Your task to perform on an android device: Toggle the flashlight Image 0: 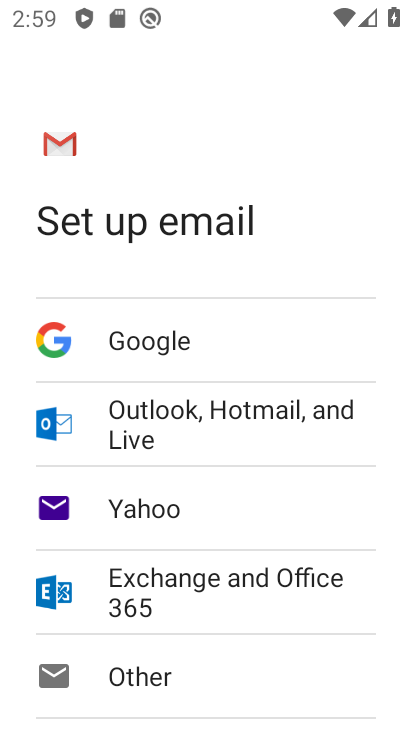
Step 0: press home button
Your task to perform on an android device: Toggle the flashlight Image 1: 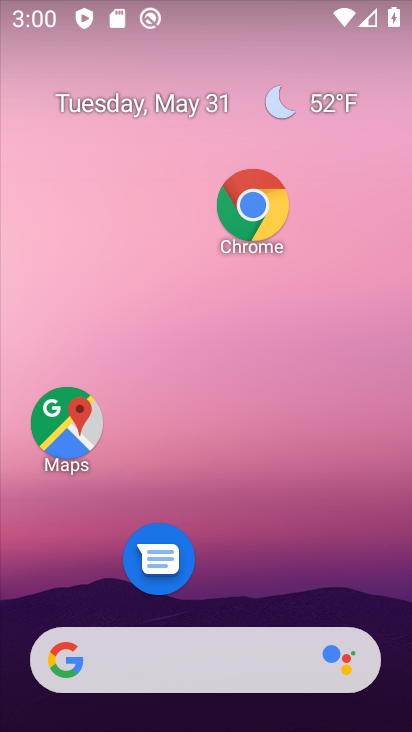
Step 1: drag from (207, 602) to (213, 307)
Your task to perform on an android device: Toggle the flashlight Image 2: 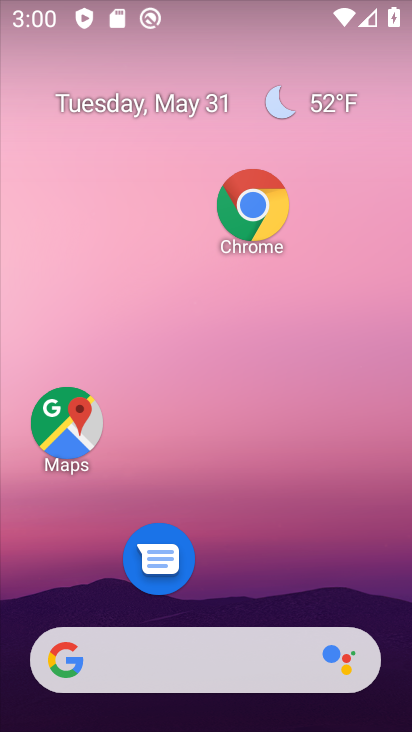
Step 2: drag from (207, 588) to (213, 201)
Your task to perform on an android device: Toggle the flashlight Image 3: 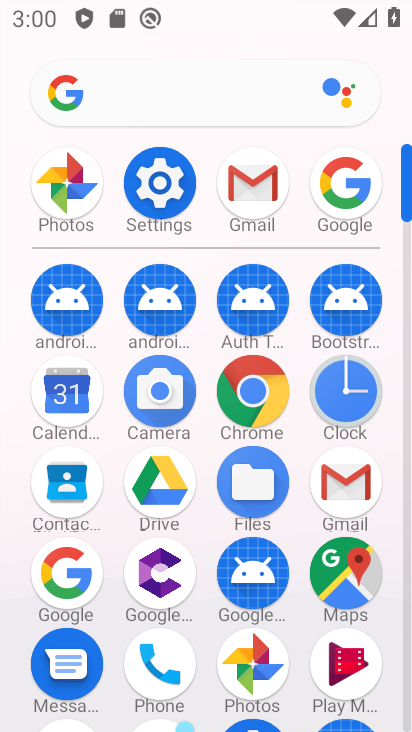
Step 3: click (163, 220)
Your task to perform on an android device: Toggle the flashlight Image 4: 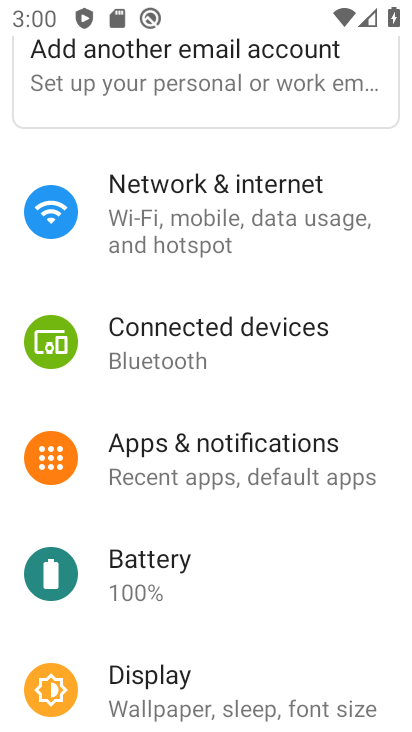
Step 4: task complete